Your task to perform on an android device: turn off priority inbox in the gmail app Image 0: 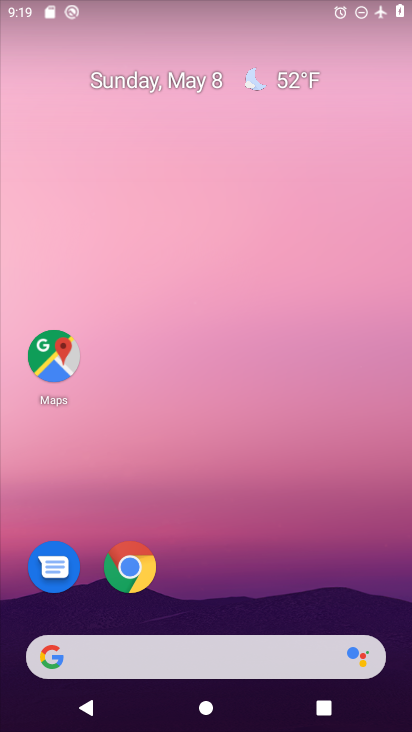
Step 0: drag from (274, 561) to (242, 110)
Your task to perform on an android device: turn off priority inbox in the gmail app Image 1: 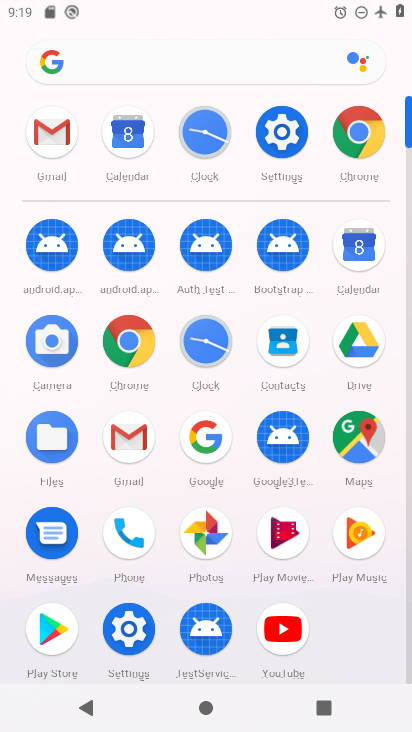
Step 1: click (18, 134)
Your task to perform on an android device: turn off priority inbox in the gmail app Image 2: 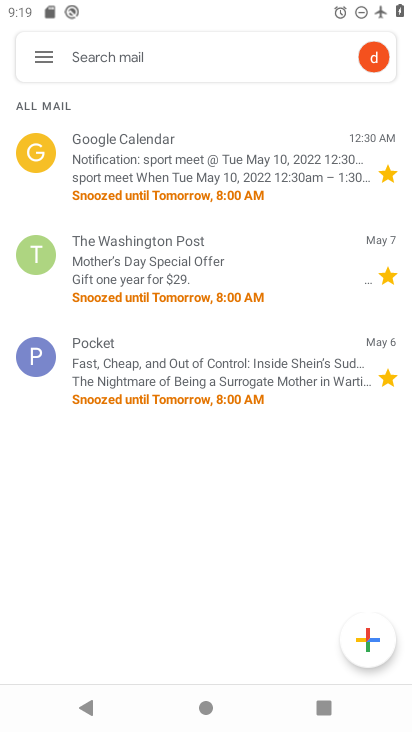
Step 2: click (37, 64)
Your task to perform on an android device: turn off priority inbox in the gmail app Image 3: 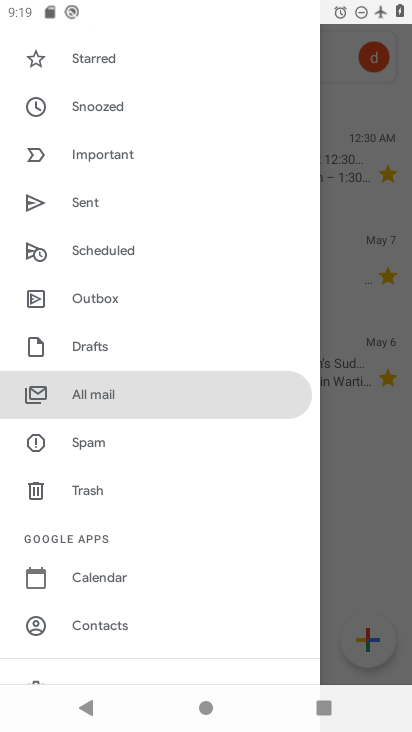
Step 3: drag from (135, 619) to (123, 155)
Your task to perform on an android device: turn off priority inbox in the gmail app Image 4: 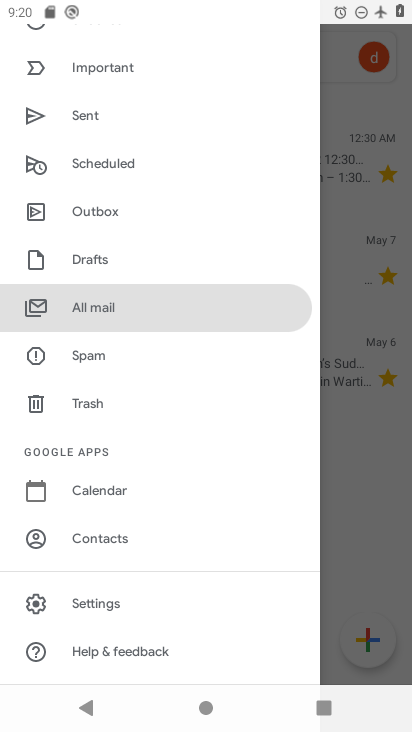
Step 4: click (53, 599)
Your task to perform on an android device: turn off priority inbox in the gmail app Image 5: 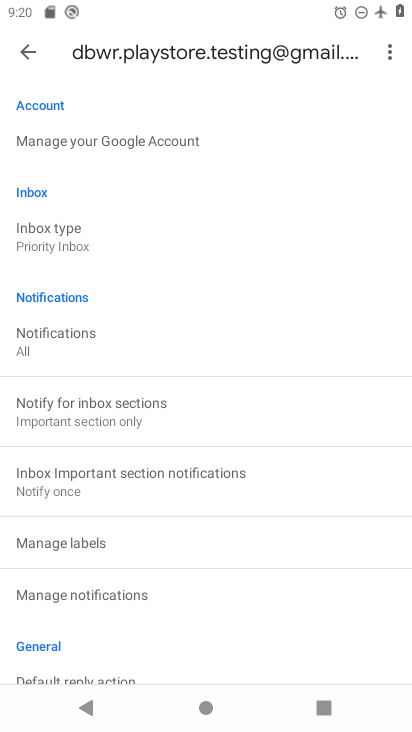
Step 5: click (108, 227)
Your task to perform on an android device: turn off priority inbox in the gmail app Image 6: 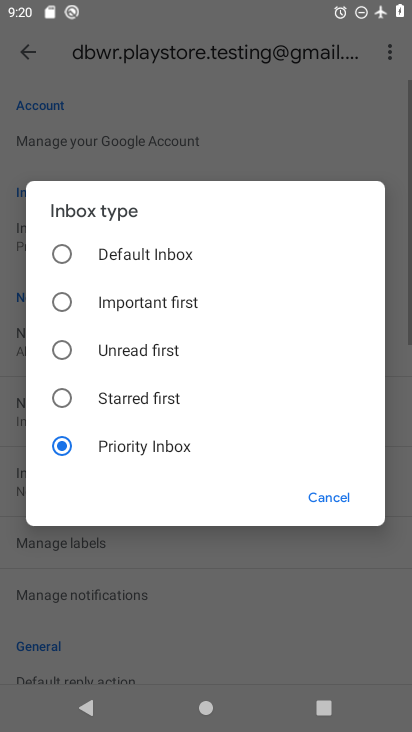
Step 6: click (82, 257)
Your task to perform on an android device: turn off priority inbox in the gmail app Image 7: 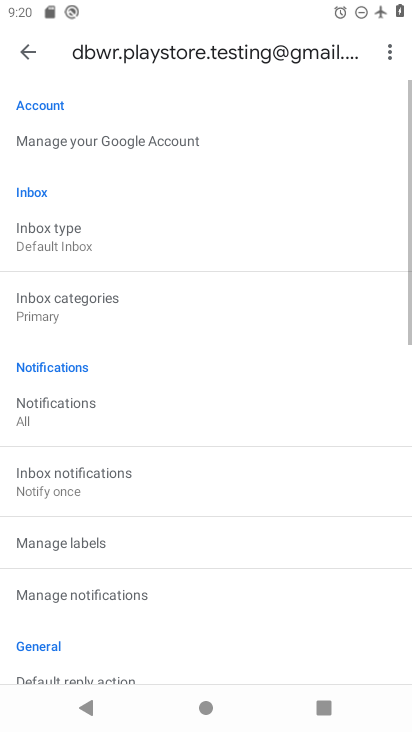
Step 7: task complete